Your task to perform on an android device: turn off smart reply in the gmail app Image 0: 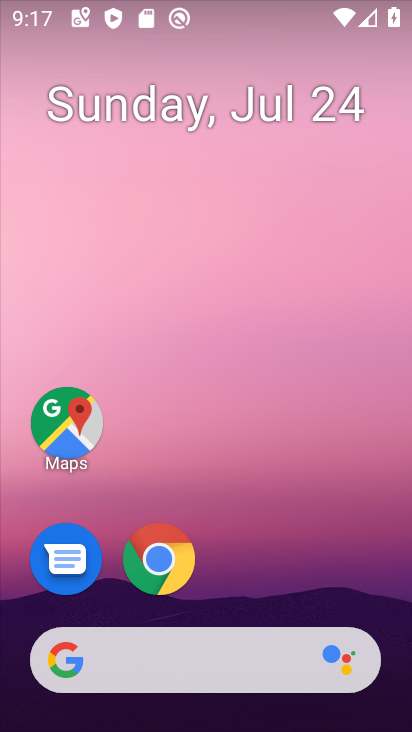
Step 0: drag from (265, 512) to (259, 70)
Your task to perform on an android device: turn off smart reply in the gmail app Image 1: 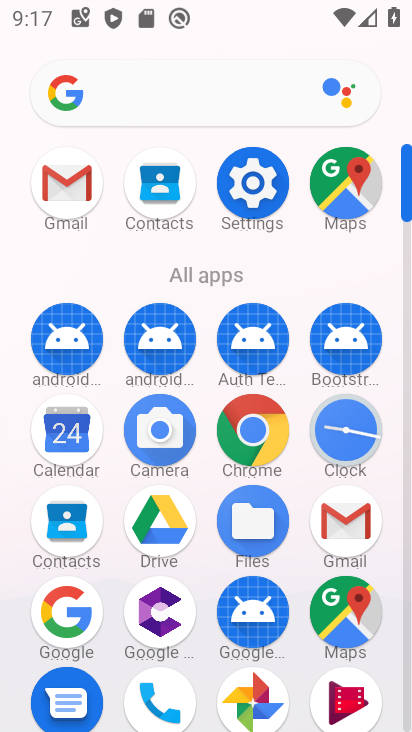
Step 1: click (53, 182)
Your task to perform on an android device: turn off smart reply in the gmail app Image 2: 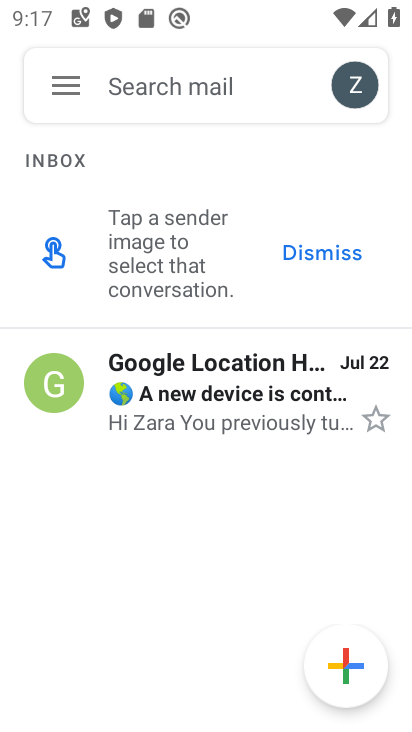
Step 2: click (78, 73)
Your task to perform on an android device: turn off smart reply in the gmail app Image 3: 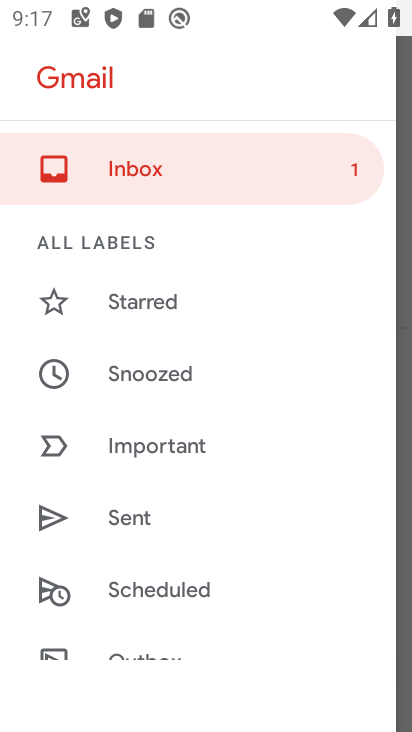
Step 3: drag from (121, 590) to (202, 24)
Your task to perform on an android device: turn off smart reply in the gmail app Image 4: 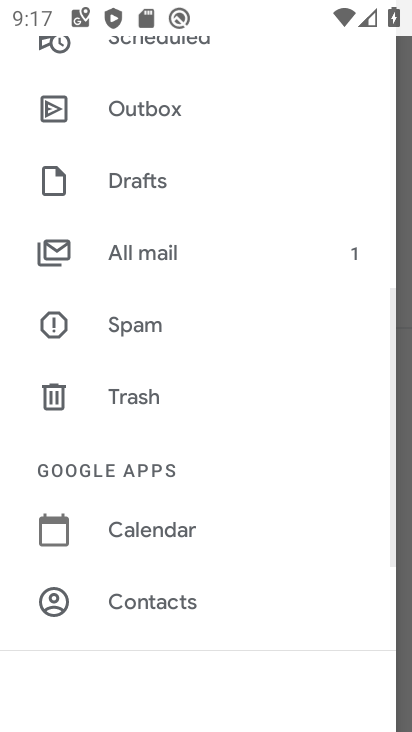
Step 4: drag from (136, 573) to (208, 46)
Your task to perform on an android device: turn off smart reply in the gmail app Image 5: 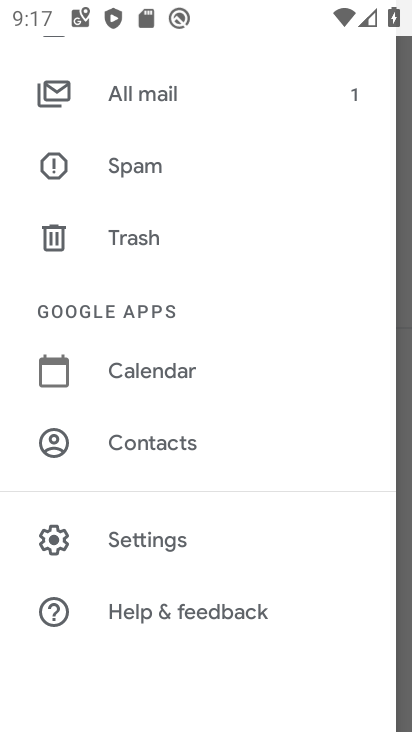
Step 5: click (133, 533)
Your task to perform on an android device: turn off smart reply in the gmail app Image 6: 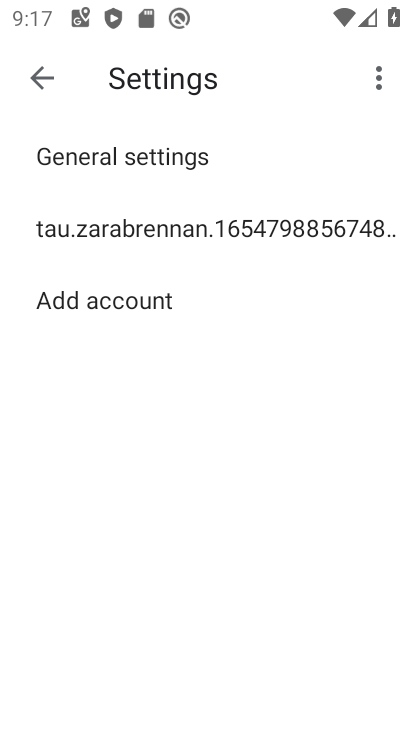
Step 6: click (113, 248)
Your task to perform on an android device: turn off smart reply in the gmail app Image 7: 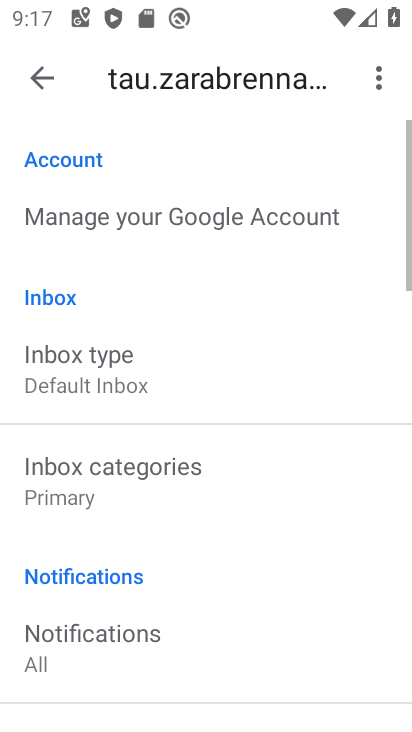
Step 7: drag from (127, 644) to (216, 3)
Your task to perform on an android device: turn off smart reply in the gmail app Image 8: 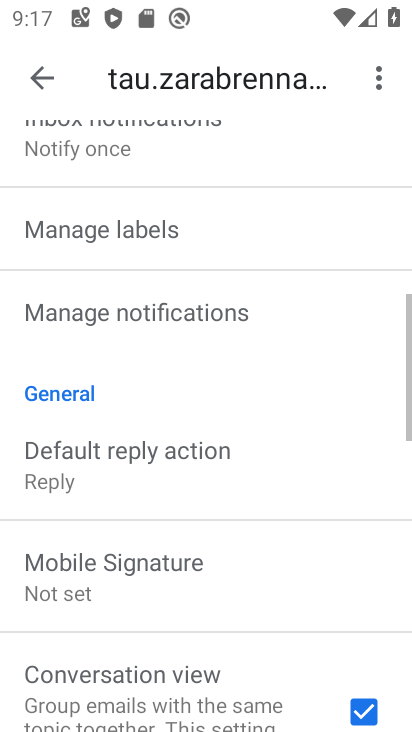
Step 8: drag from (162, 636) to (227, 133)
Your task to perform on an android device: turn off smart reply in the gmail app Image 9: 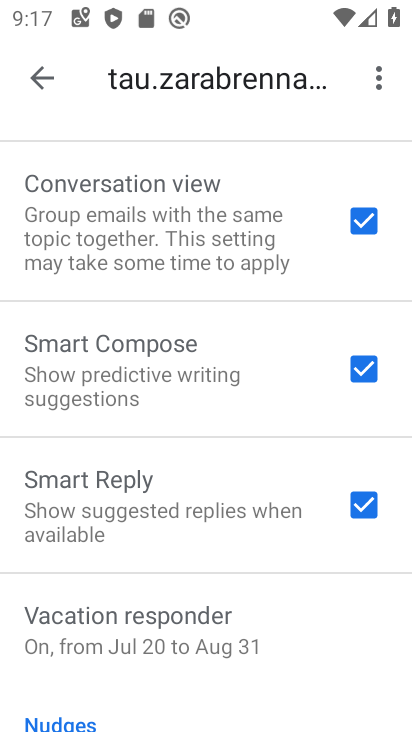
Step 9: click (364, 513)
Your task to perform on an android device: turn off smart reply in the gmail app Image 10: 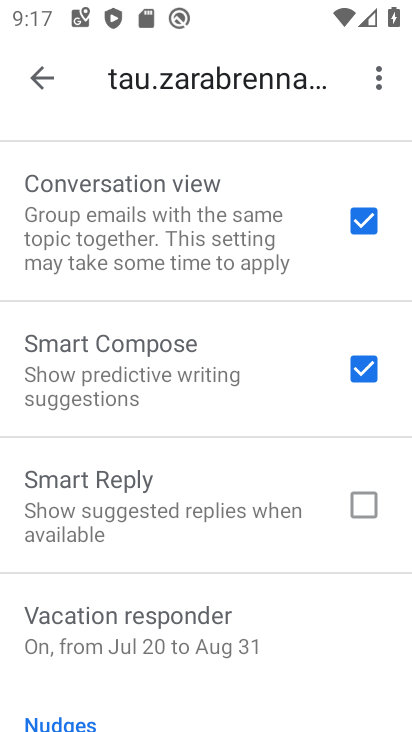
Step 10: task complete